Your task to perform on an android device: turn off location history Image 0: 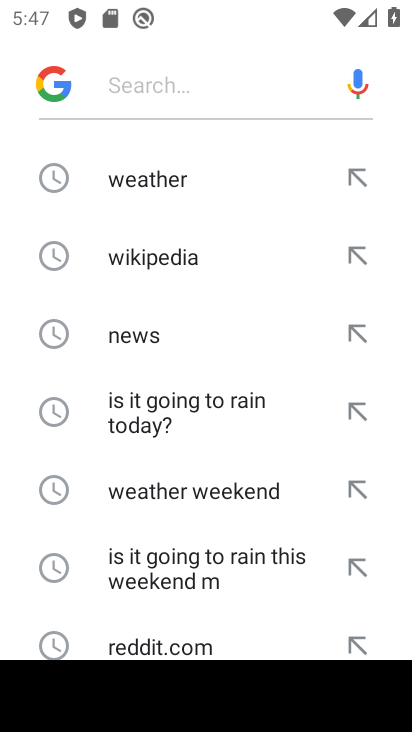
Step 0: press home button
Your task to perform on an android device: turn off location history Image 1: 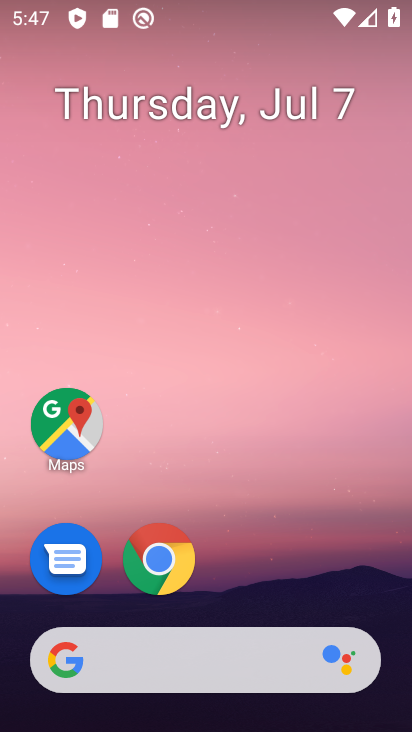
Step 1: drag from (307, 595) to (328, 41)
Your task to perform on an android device: turn off location history Image 2: 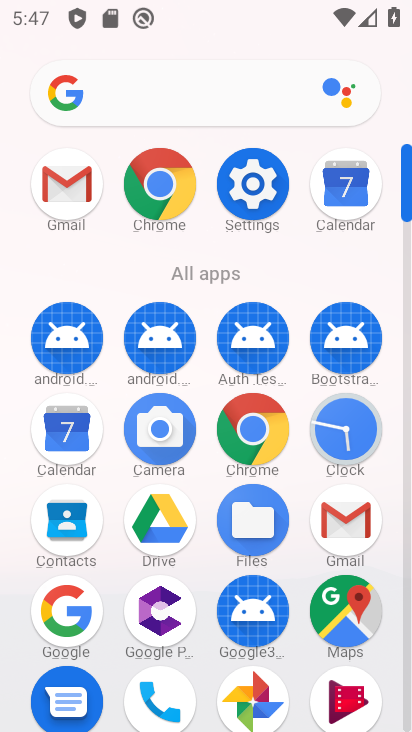
Step 2: click (239, 200)
Your task to perform on an android device: turn off location history Image 3: 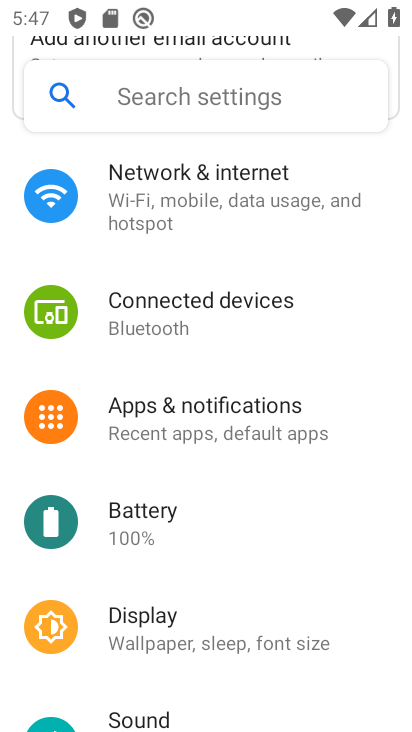
Step 3: drag from (220, 579) to (257, 317)
Your task to perform on an android device: turn off location history Image 4: 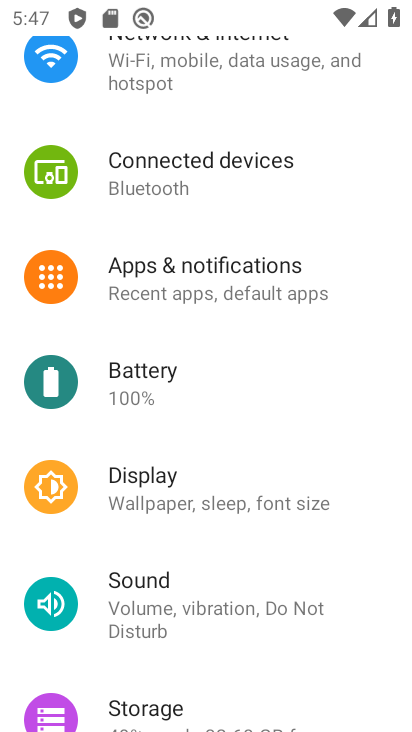
Step 4: drag from (197, 616) to (212, 347)
Your task to perform on an android device: turn off location history Image 5: 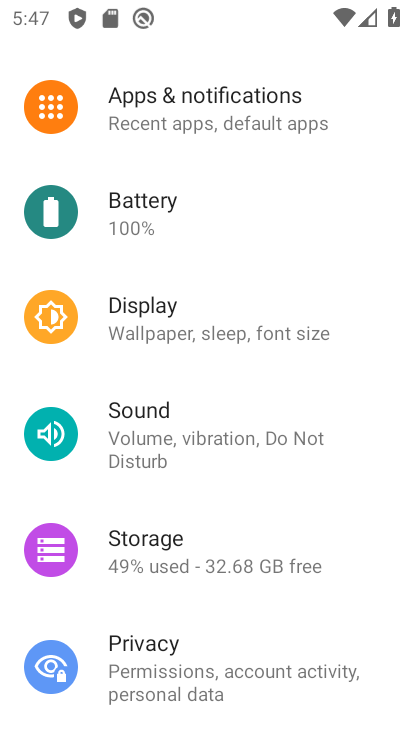
Step 5: drag from (212, 583) to (267, 243)
Your task to perform on an android device: turn off location history Image 6: 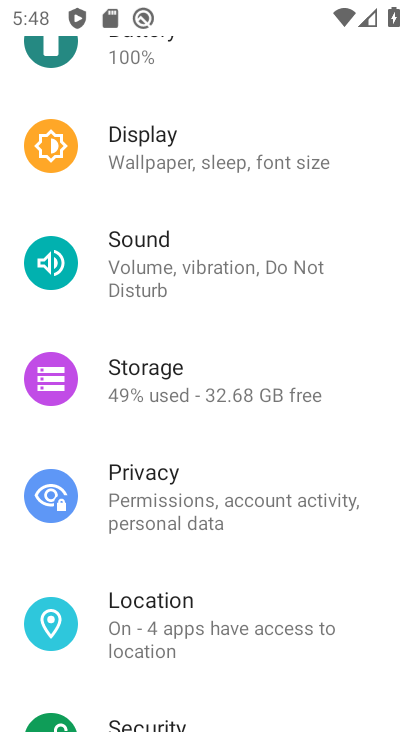
Step 6: click (209, 640)
Your task to perform on an android device: turn off location history Image 7: 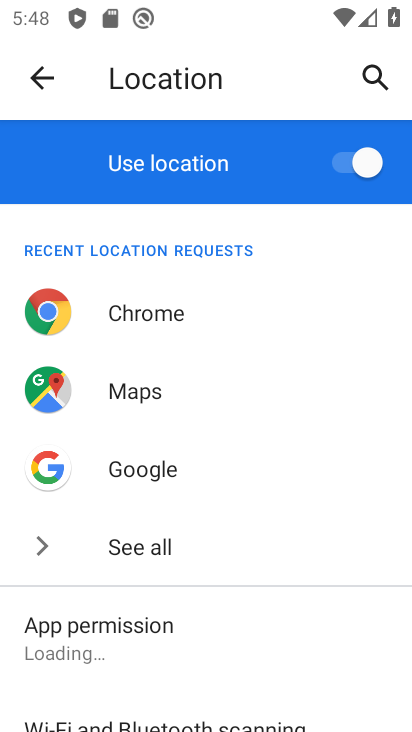
Step 7: click (314, 138)
Your task to perform on an android device: turn off location history Image 8: 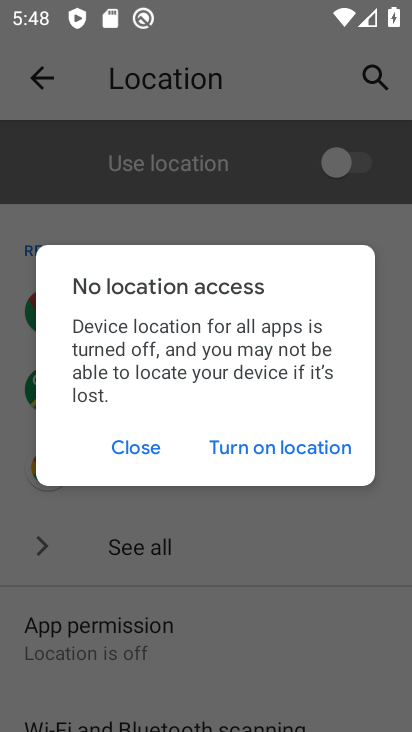
Step 8: task complete